Your task to perform on an android device: turn pop-ups on in chrome Image 0: 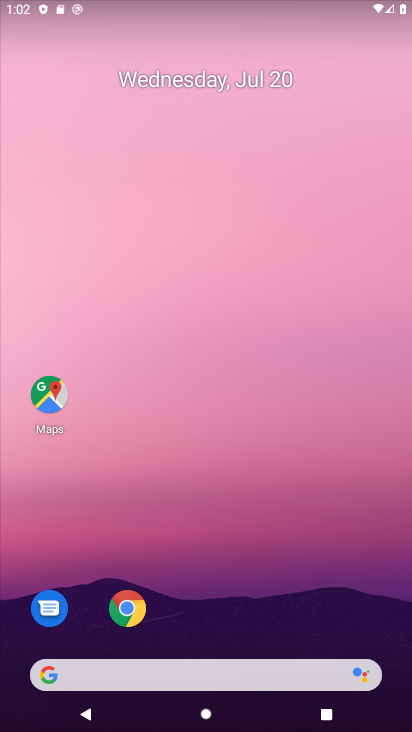
Step 0: drag from (322, 53) to (1, 286)
Your task to perform on an android device: turn pop-ups on in chrome Image 1: 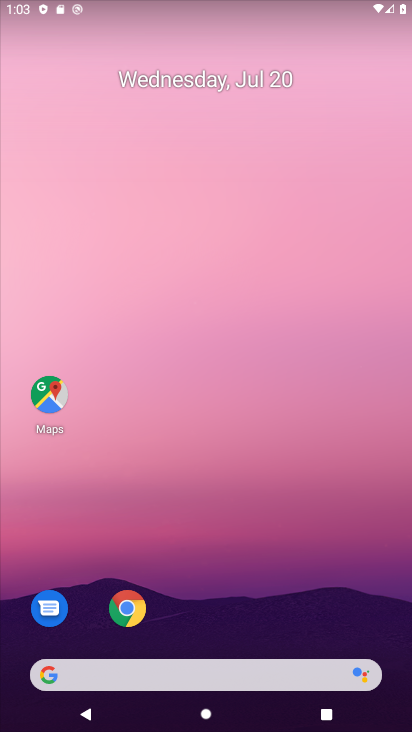
Step 1: drag from (284, 524) to (380, 4)
Your task to perform on an android device: turn pop-ups on in chrome Image 2: 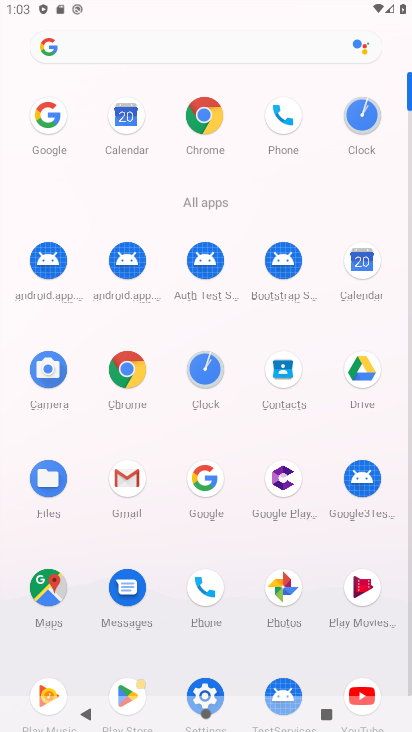
Step 2: click (193, 111)
Your task to perform on an android device: turn pop-ups on in chrome Image 3: 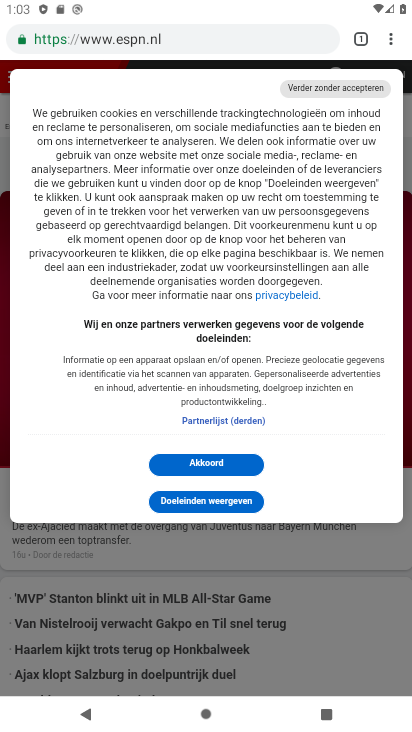
Step 3: drag from (394, 38) to (254, 469)
Your task to perform on an android device: turn pop-ups on in chrome Image 4: 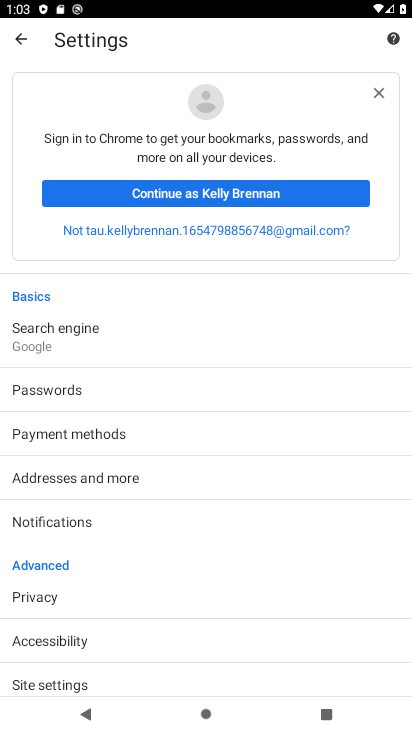
Step 4: drag from (218, 548) to (277, 250)
Your task to perform on an android device: turn pop-ups on in chrome Image 5: 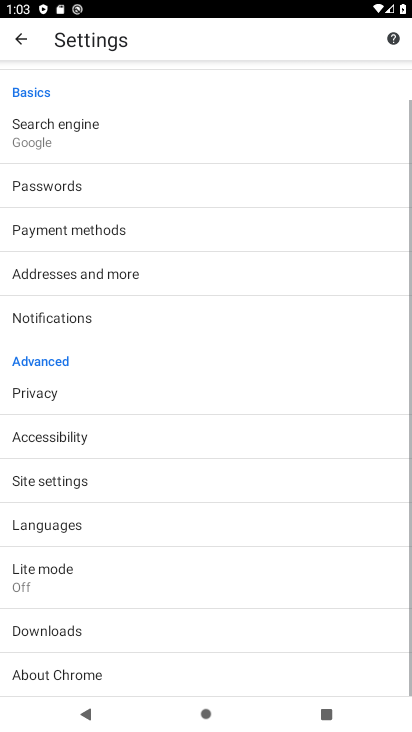
Step 5: click (55, 468)
Your task to perform on an android device: turn pop-ups on in chrome Image 6: 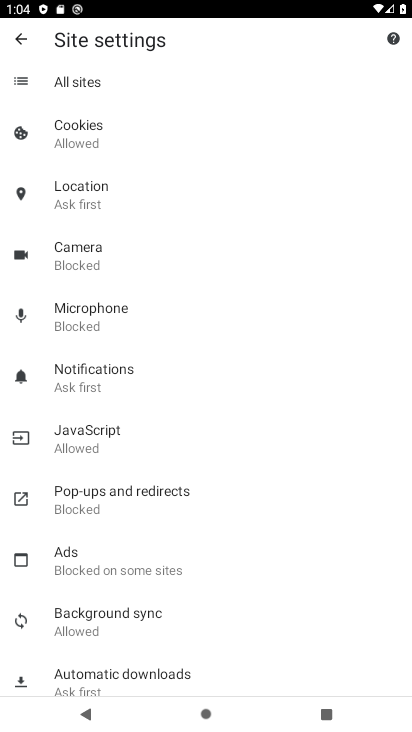
Step 6: click (139, 501)
Your task to perform on an android device: turn pop-ups on in chrome Image 7: 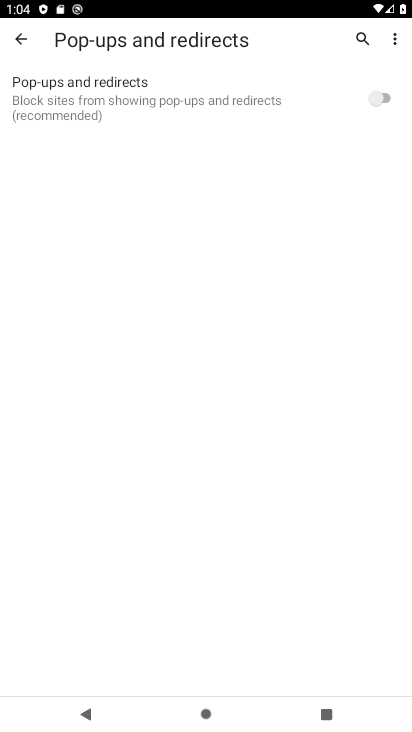
Step 7: click (381, 106)
Your task to perform on an android device: turn pop-ups on in chrome Image 8: 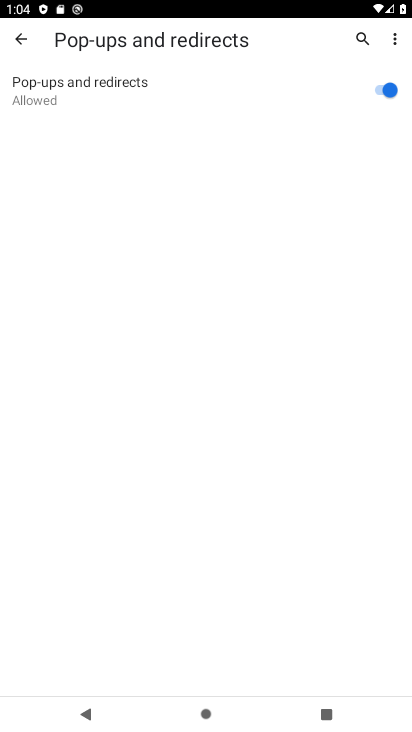
Step 8: task complete